Your task to perform on an android device: turn on priority inbox in the gmail app Image 0: 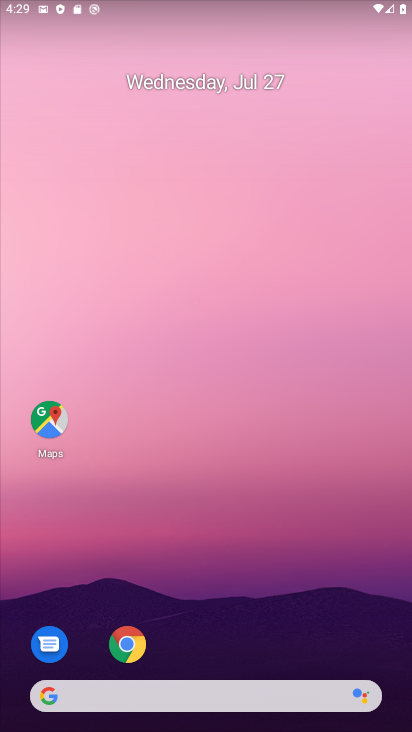
Step 0: drag from (324, 653) to (305, 217)
Your task to perform on an android device: turn on priority inbox in the gmail app Image 1: 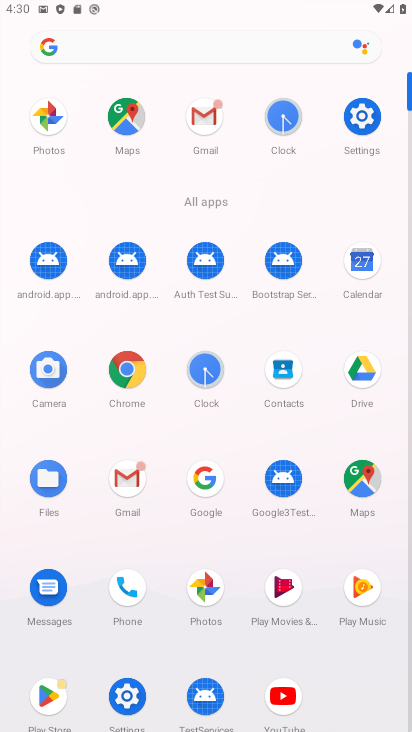
Step 1: click (193, 108)
Your task to perform on an android device: turn on priority inbox in the gmail app Image 2: 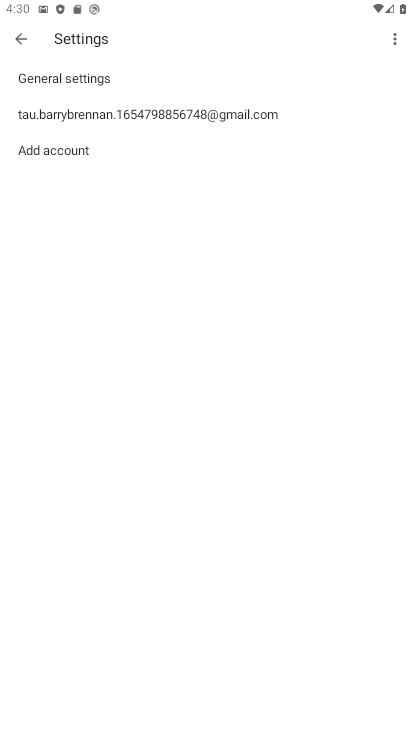
Step 2: click (115, 118)
Your task to perform on an android device: turn on priority inbox in the gmail app Image 3: 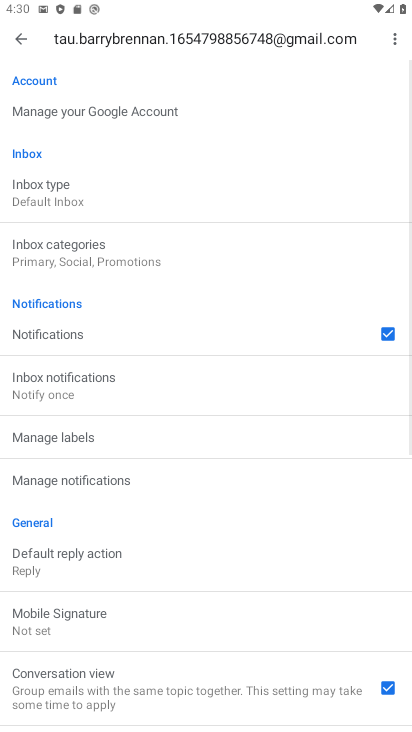
Step 3: click (63, 200)
Your task to perform on an android device: turn on priority inbox in the gmail app Image 4: 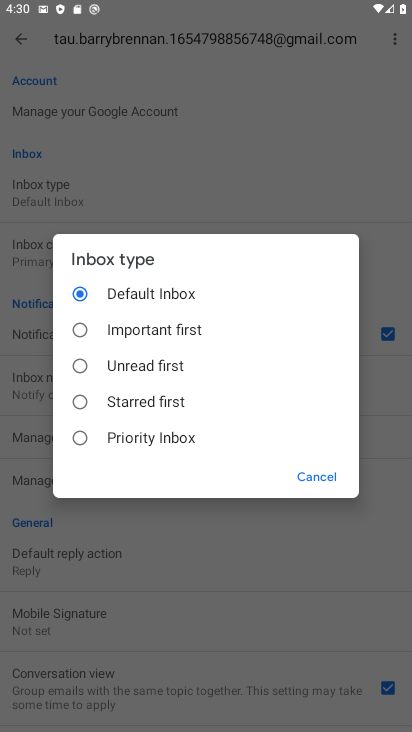
Step 4: click (133, 435)
Your task to perform on an android device: turn on priority inbox in the gmail app Image 5: 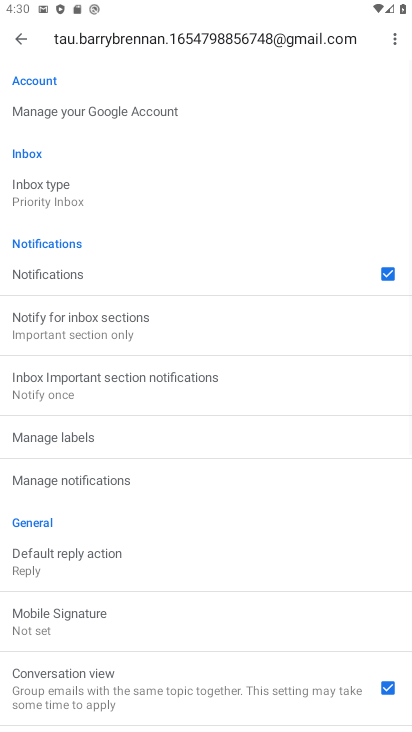
Step 5: task complete